Your task to perform on an android device: turn off notifications in google photos Image 0: 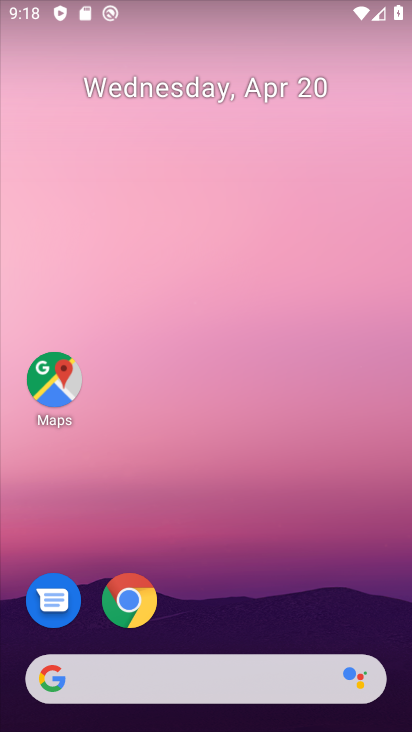
Step 0: drag from (356, 618) to (382, 28)
Your task to perform on an android device: turn off notifications in google photos Image 1: 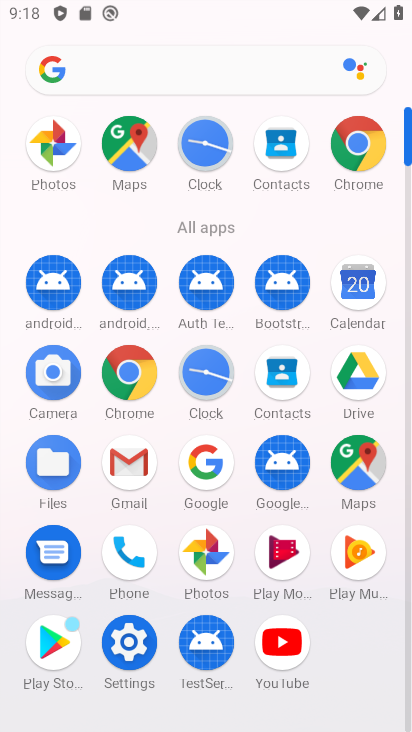
Step 1: click (53, 151)
Your task to perform on an android device: turn off notifications in google photos Image 2: 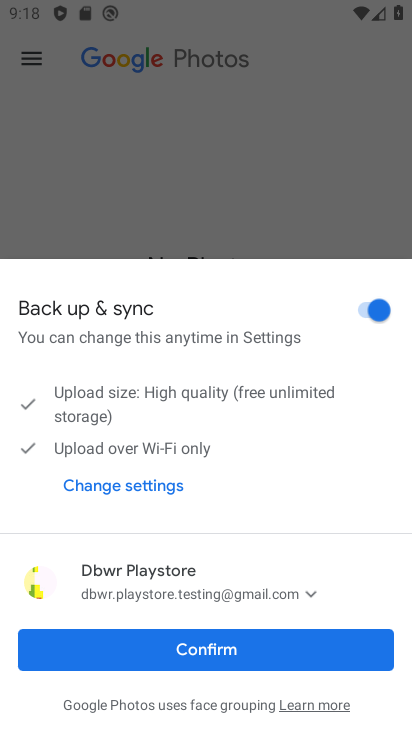
Step 2: click (192, 651)
Your task to perform on an android device: turn off notifications in google photos Image 3: 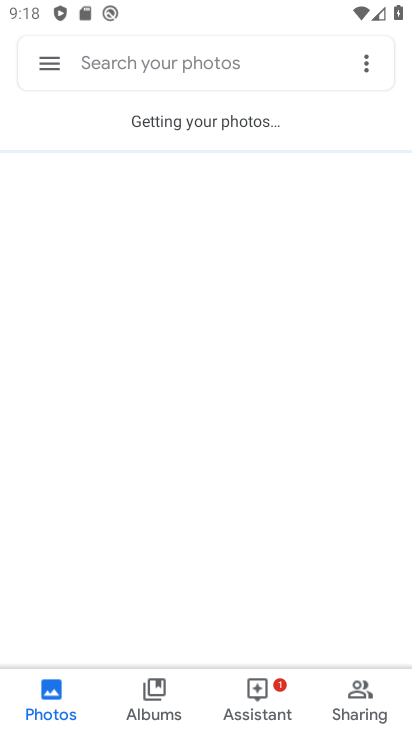
Step 3: click (46, 62)
Your task to perform on an android device: turn off notifications in google photos Image 4: 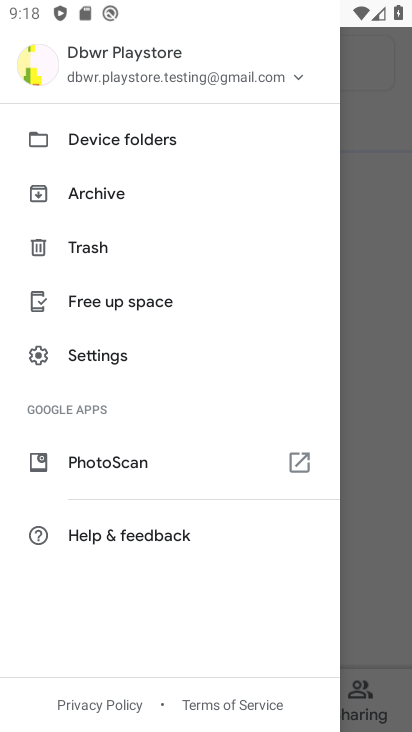
Step 4: click (106, 357)
Your task to perform on an android device: turn off notifications in google photos Image 5: 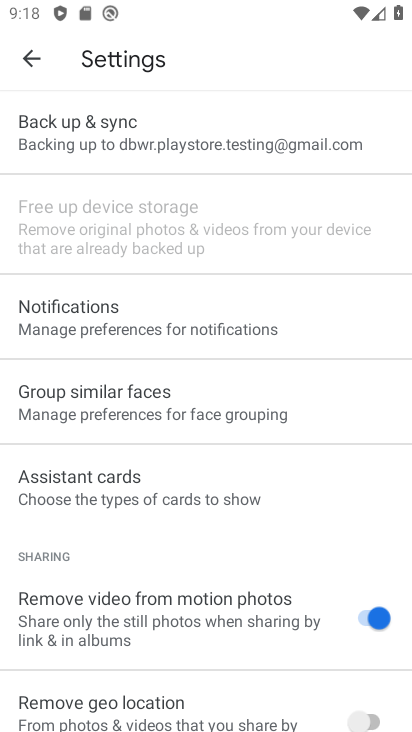
Step 5: click (97, 336)
Your task to perform on an android device: turn off notifications in google photos Image 6: 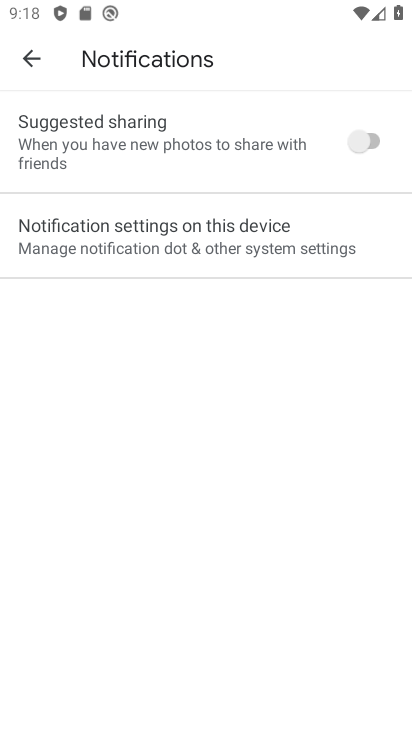
Step 6: click (110, 249)
Your task to perform on an android device: turn off notifications in google photos Image 7: 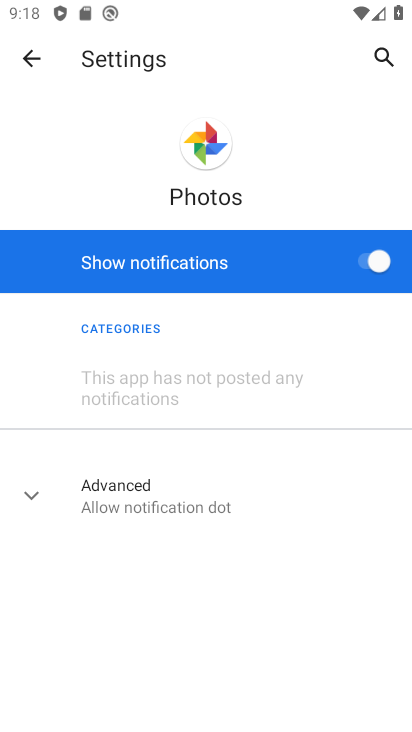
Step 7: click (373, 253)
Your task to perform on an android device: turn off notifications in google photos Image 8: 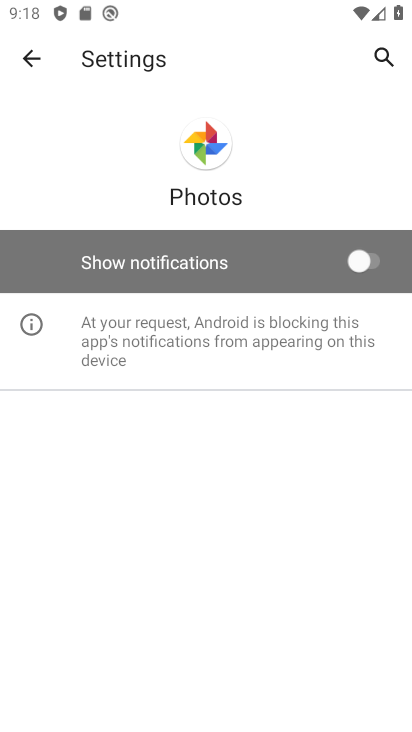
Step 8: task complete